Your task to perform on an android device: Do I have any events this weekend? Image 0: 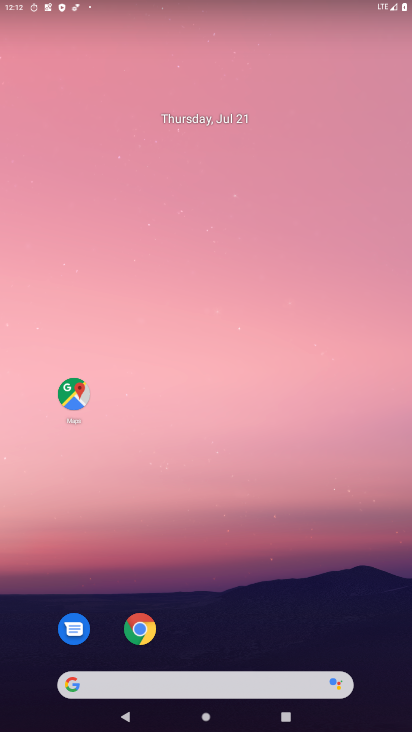
Step 0: drag from (240, 670) to (214, 146)
Your task to perform on an android device: Do I have any events this weekend? Image 1: 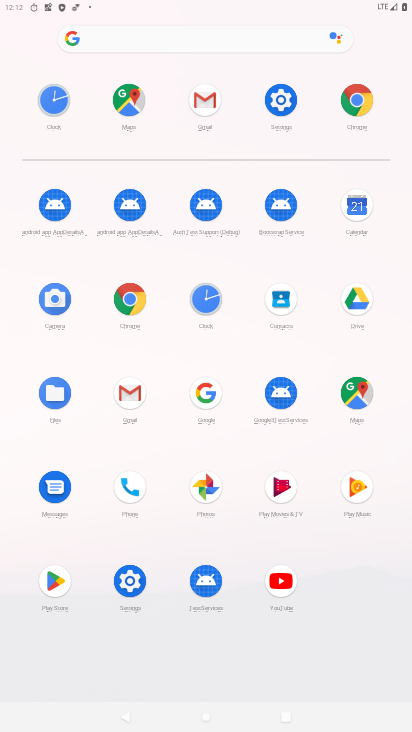
Step 1: click (354, 205)
Your task to perform on an android device: Do I have any events this weekend? Image 2: 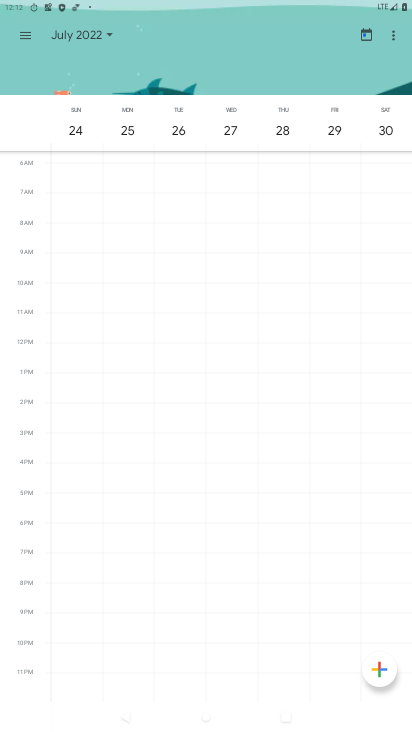
Step 2: click (102, 31)
Your task to perform on an android device: Do I have any events this weekend? Image 3: 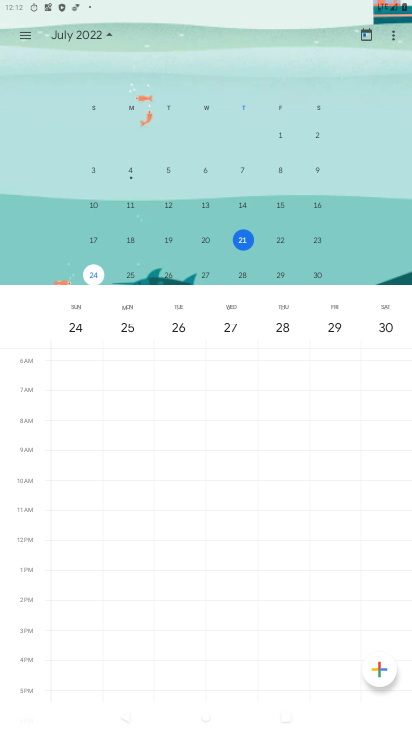
Step 3: click (316, 238)
Your task to perform on an android device: Do I have any events this weekend? Image 4: 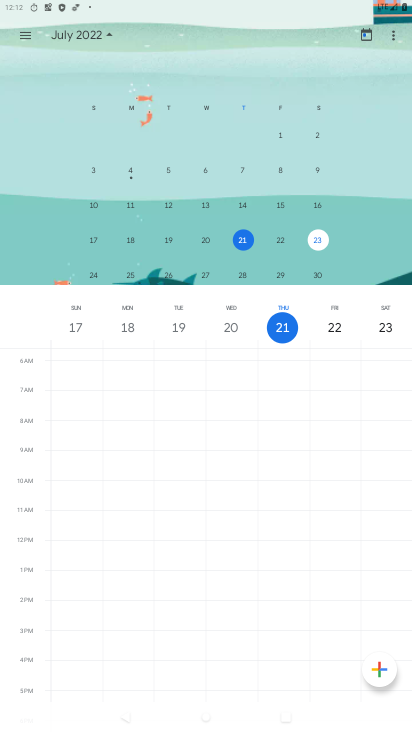
Step 4: task complete